Your task to perform on an android device: Clear the shopping cart on walmart.com. Image 0: 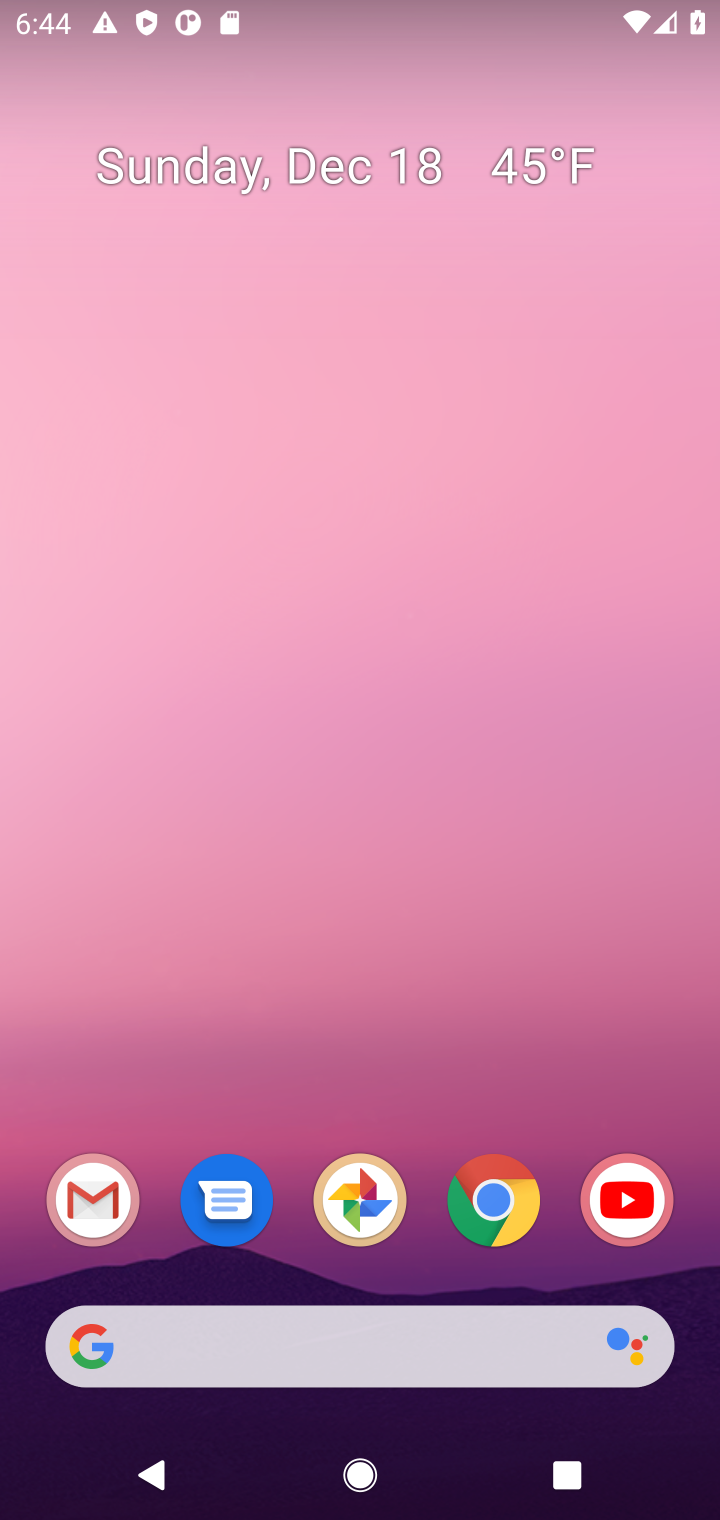
Step 0: click (503, 1216)
Your task to perform on an android device: Clear the shopping cart on walmart.com. Image 1: 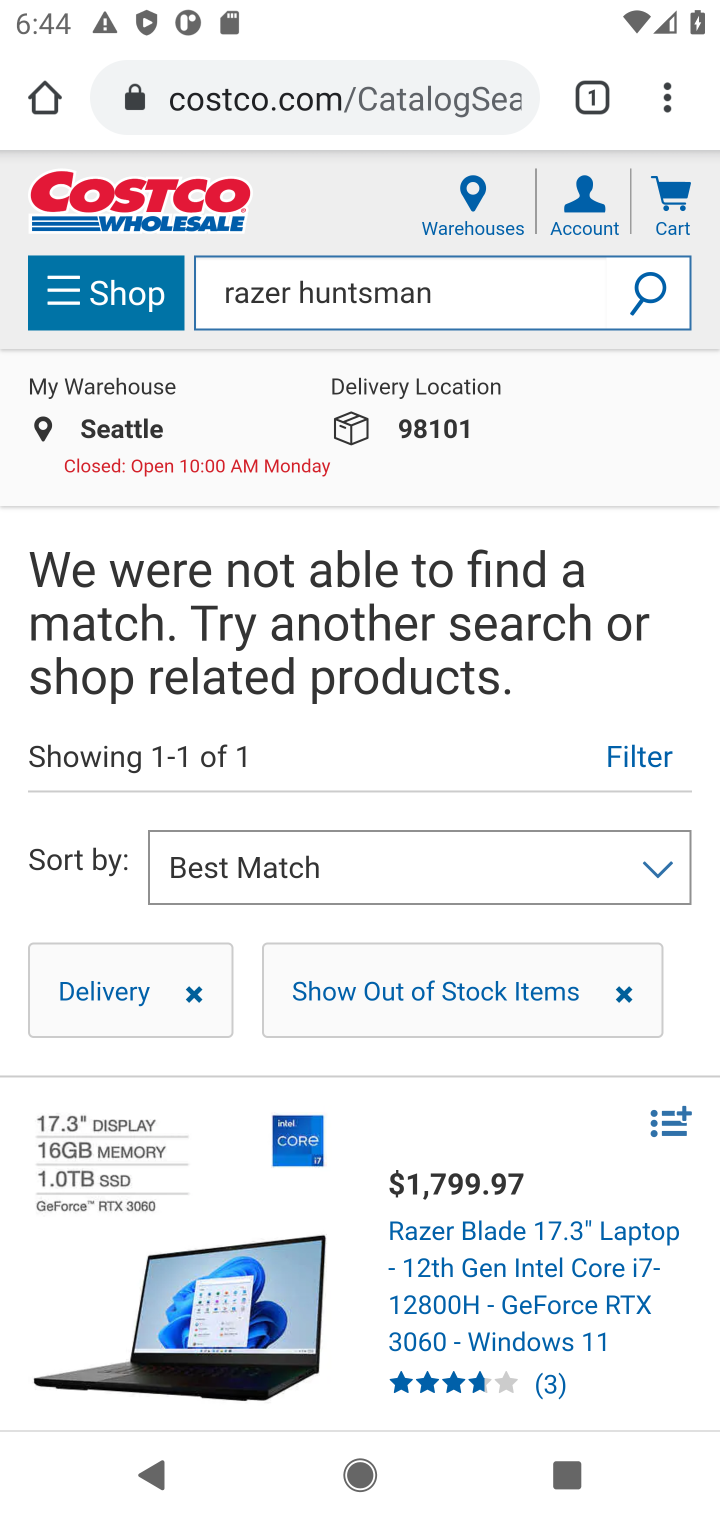
Step 1: click (318, 97)
Your task to perform on an android device: Clear the shopping cart on walmart.com. Image 2: 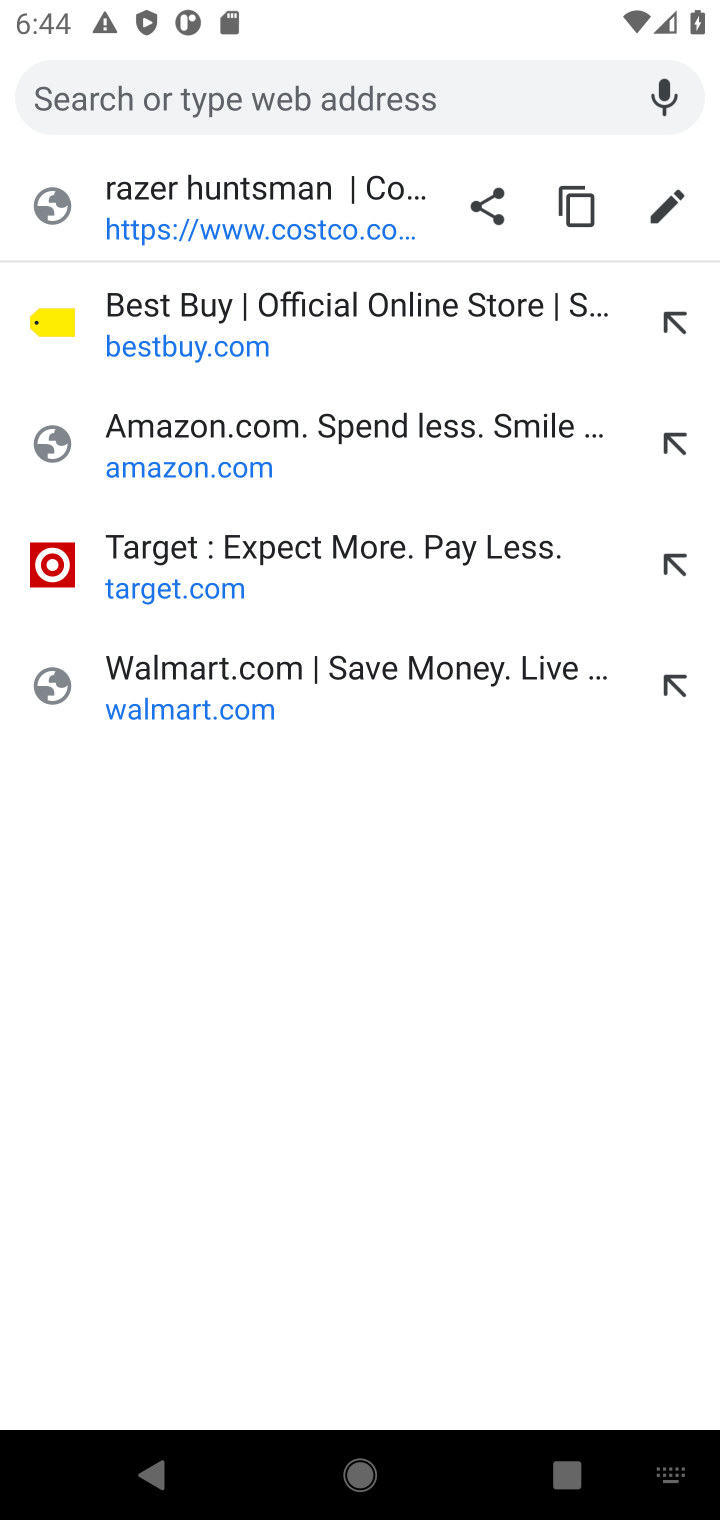
Step 2: click (171, 689)
Your task to perform on an android device: Clear the shopping cart on walmart.com. Image 3: 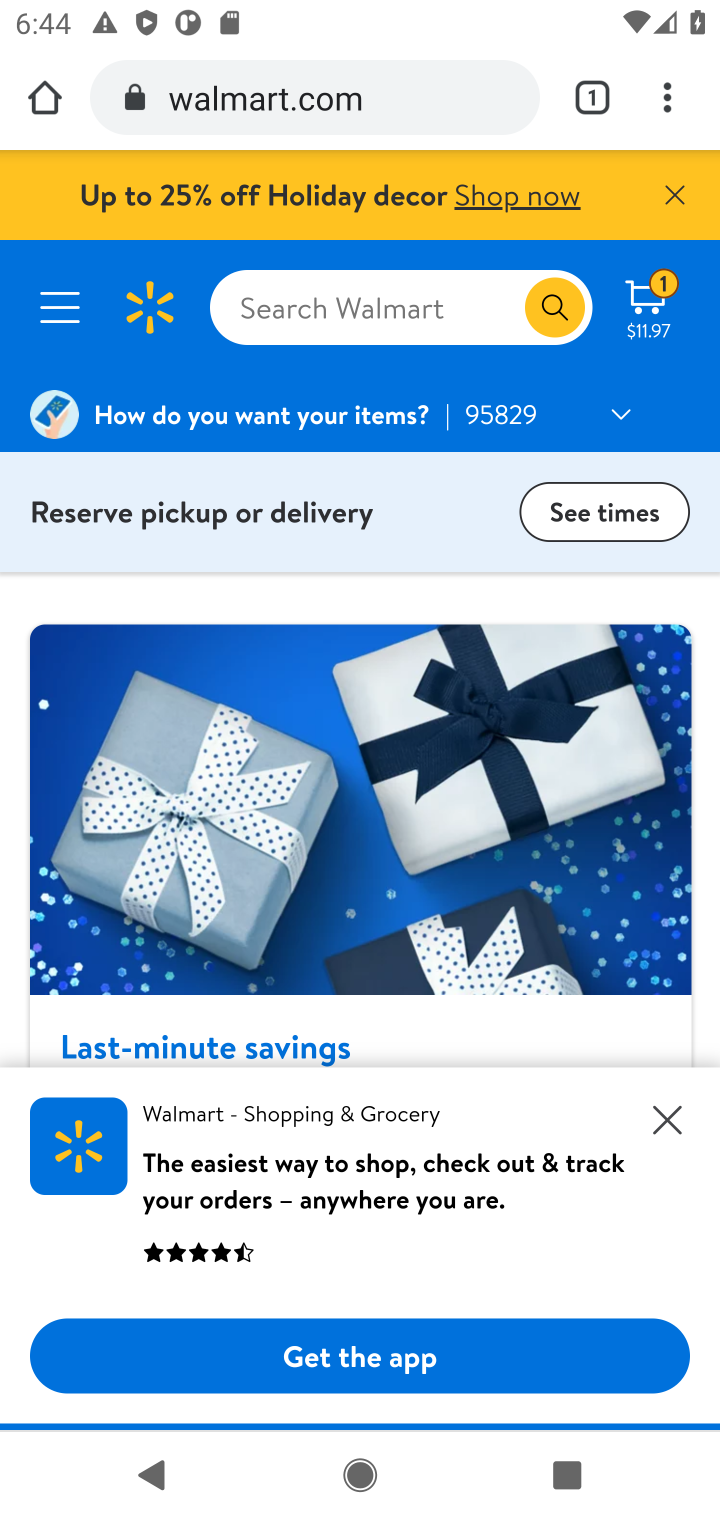
Step 3: click (647, 333)
Your task to perform on an android device: Clear the shopping cart on walmart.com. Image 4: 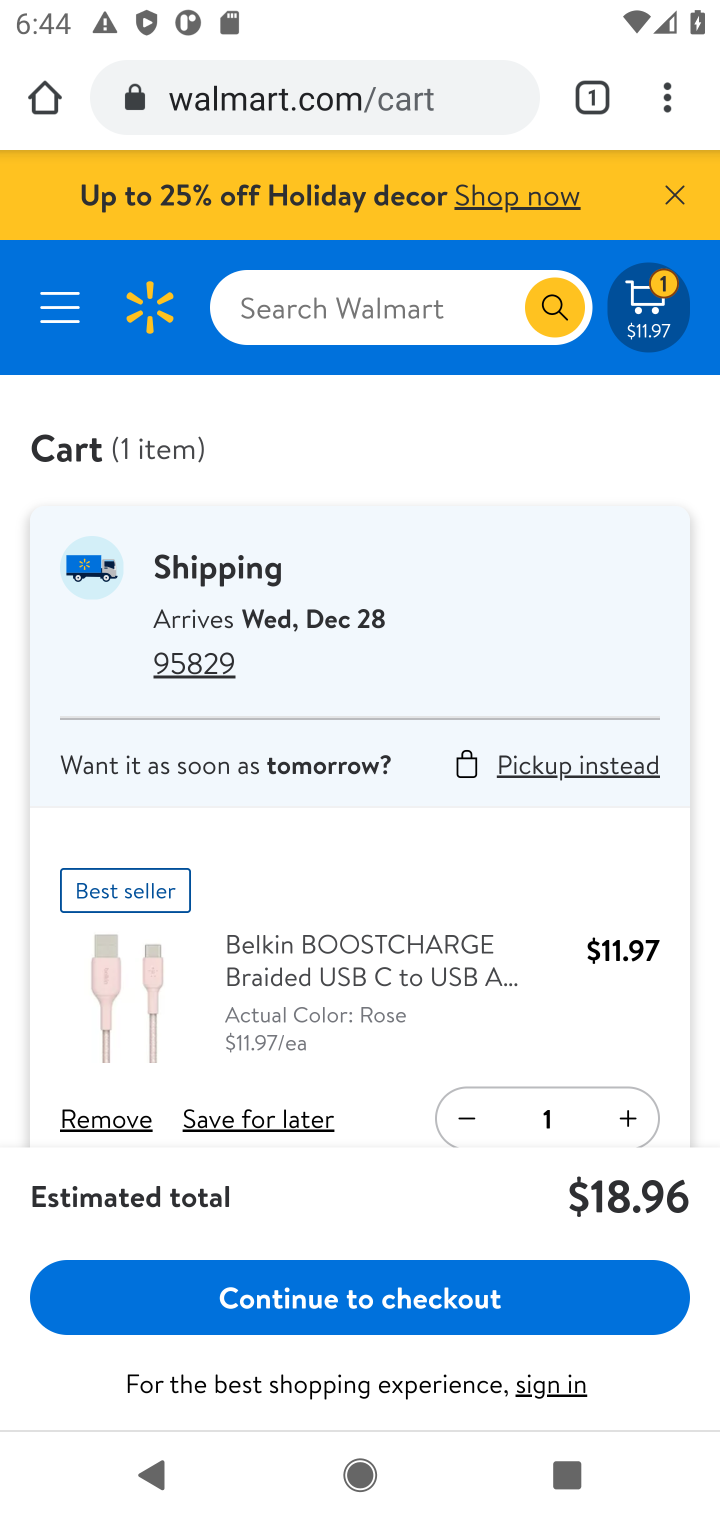
Step 4: click (73, 1127)
Your task to perform on an android device: Clear the shopping cart on walmart.com. Image 5: 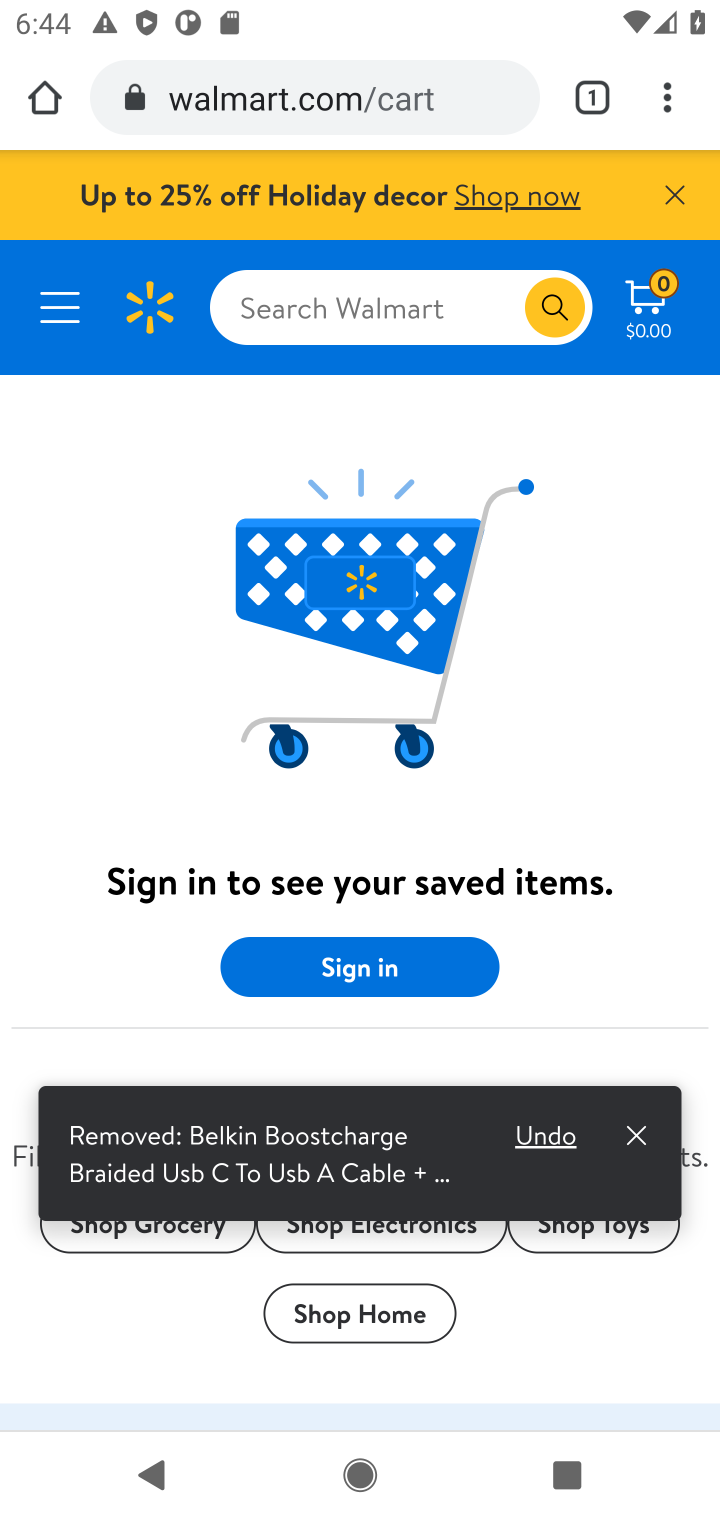
Step 5: task complete